Your task to perform on an android device: open sync settings in chrome Image 0: 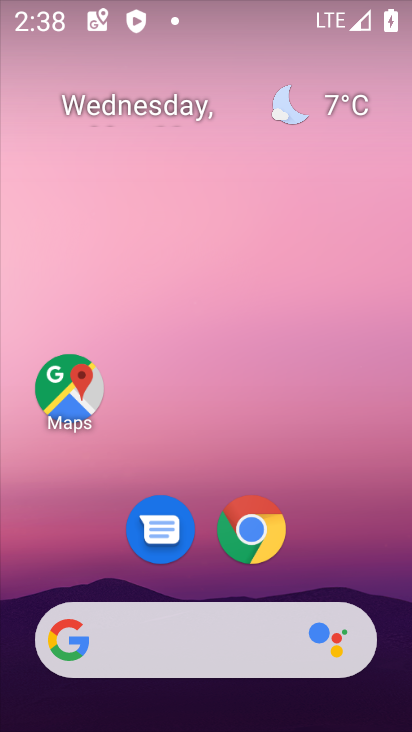
Step 0: press back button
Your task to perform on an android device: open sync settings in chrome Image 1: 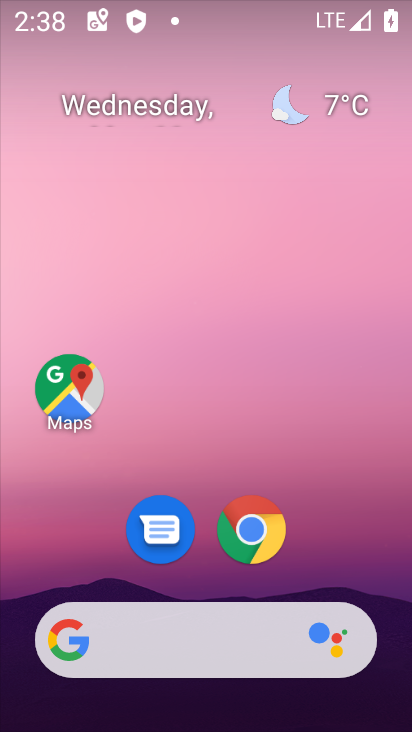
Step 1: click (247, 535)
Your task to perform on an android device: open sync settings in chrome Image 2: 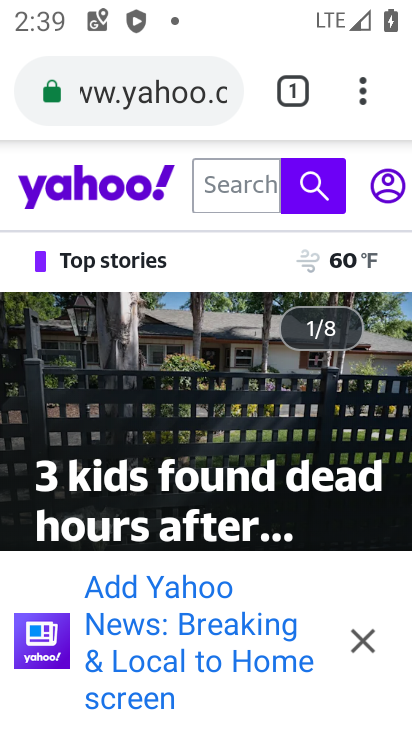
Step 2: click (367, 95)
Your task to perform on an android device: open sync settings in chrome Image 3: 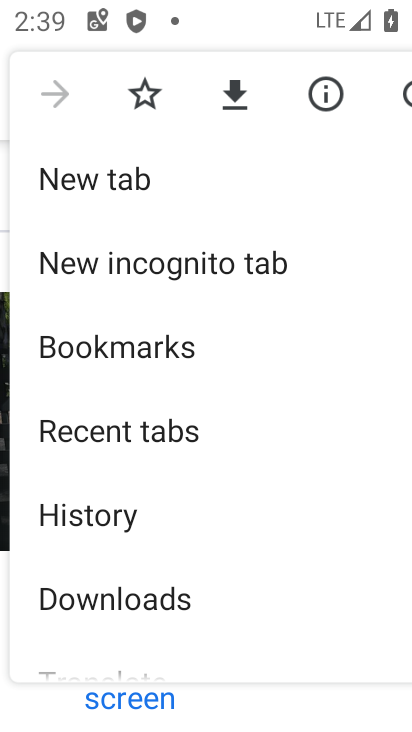
Step 3: drag from (89, 629) to (269, 206)
Your task to perform on an android device: open sync settings in chrome Image 4: 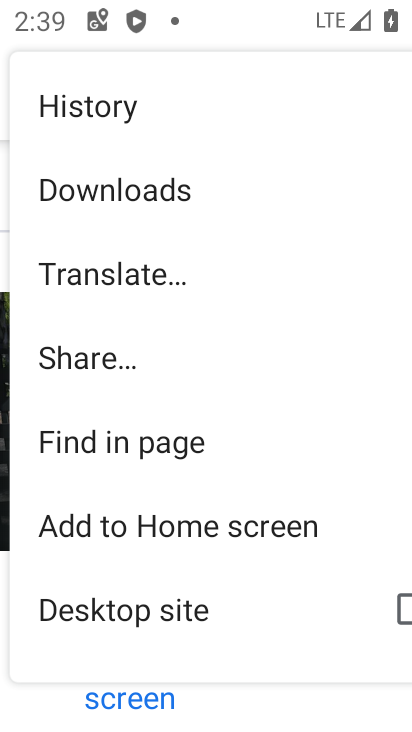
Step 4: drag from (62, 611) to (280, 85)
Your task to perform on an android device: open sync settings in chrome Image 5: 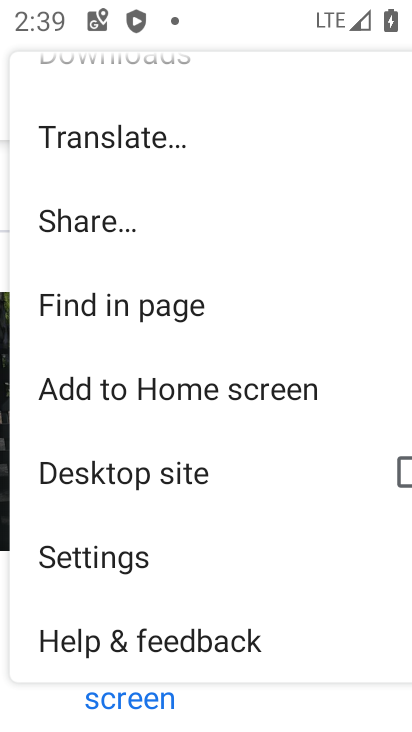
Step 5: click (134, 550)
Your task to perform on an android device: open sync settings in chrome Image 6: 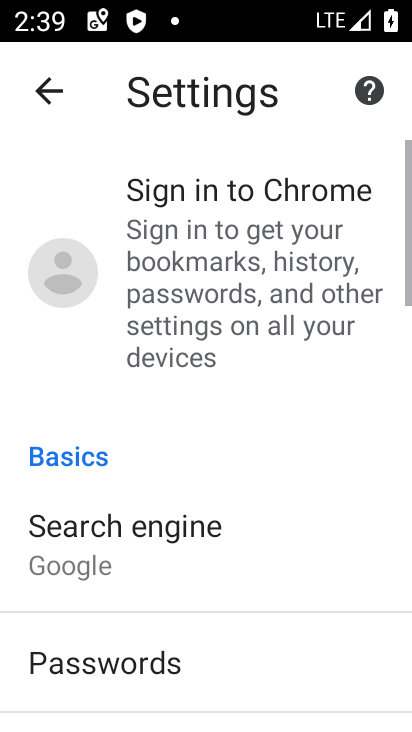
Step 6: drag from (107, 646) to (233, 135)
Your task to perform on an android device: open sync settings in chrome Image 7: 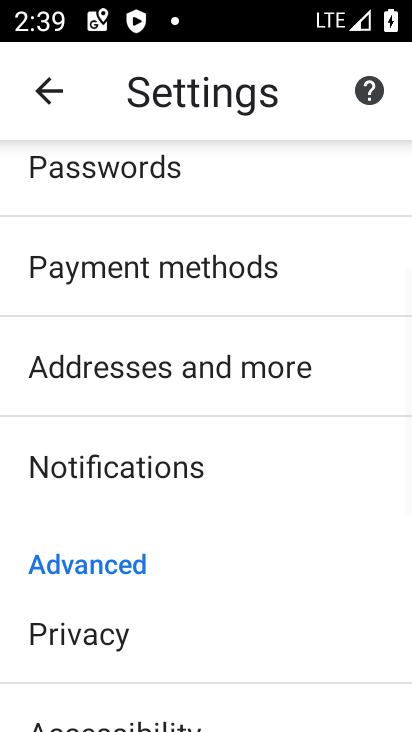
Step 7: drag from (97, 686) to (263, 136)
Your task to perform on an android device: open sync settings in chrome Image 8: 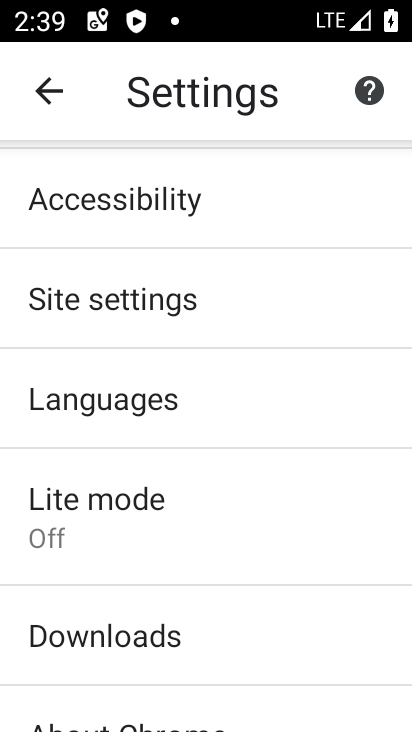
Step 8: click (128, 301)
Your task to perform on an android device: open sync settings in chrome Image 9: 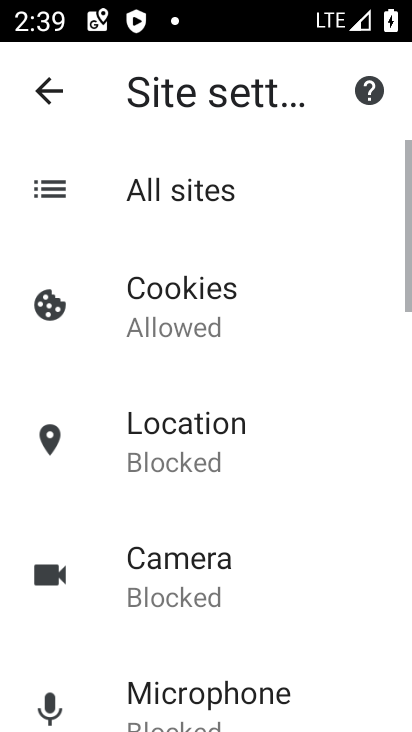
Step 9: drag from (145, 660) to (277, 142)
Your task to perform on an android device: open sync settings in chrome Image 10: 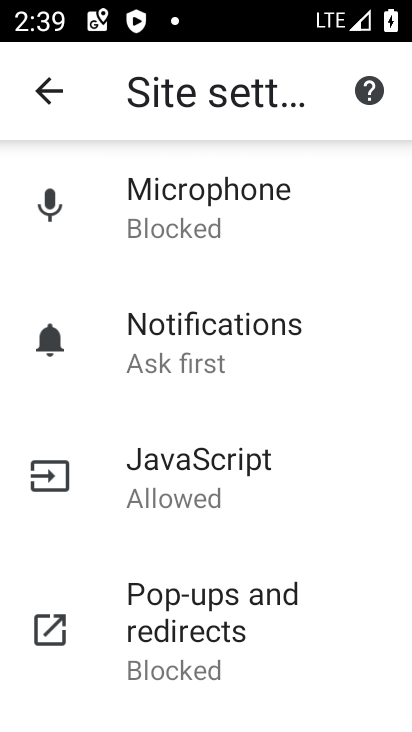
Step 10: drag from (163, 691) to (287, 183)
Your task to perform on an android device: open sync settings in chrome Image 11: 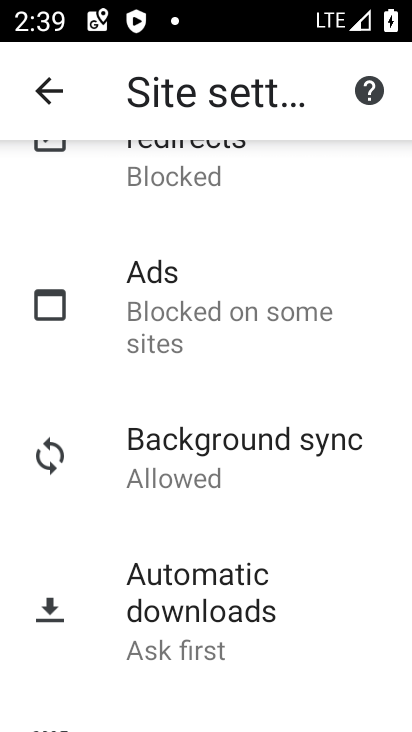
Step 11: click (198, 442)
Your task to perform on an android device: open sync settings in chrome Image 12: 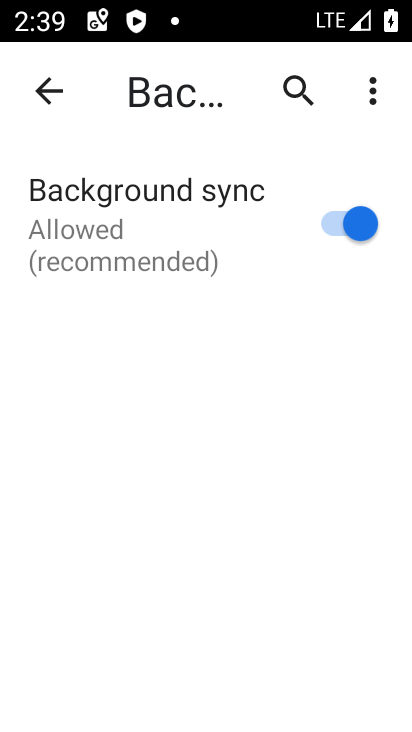
Step 12: task complete